Your task to perform on an android device: open sync settings in chrome Image 0: 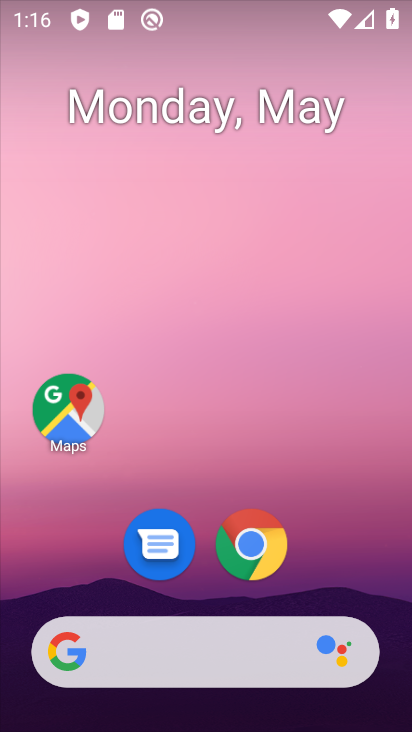
Step 0: drag from (383, 594) to (375, 93)
Your task to perform on an android device: open sync settings in chrome Image 1: 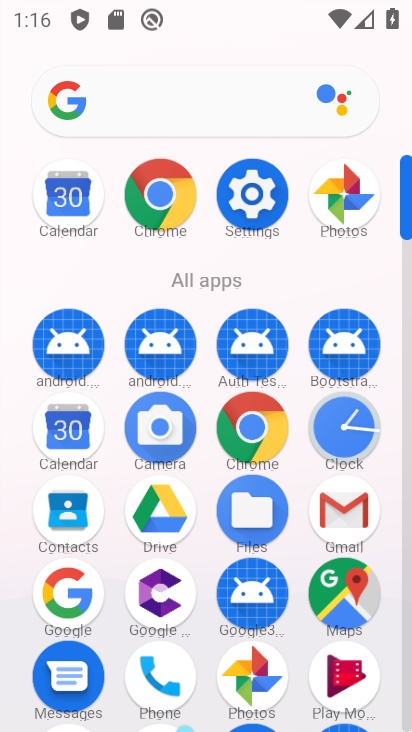
Step 1: click (179, 215)
Your task to perform on an android device: open sync settings in chrome Image 2: 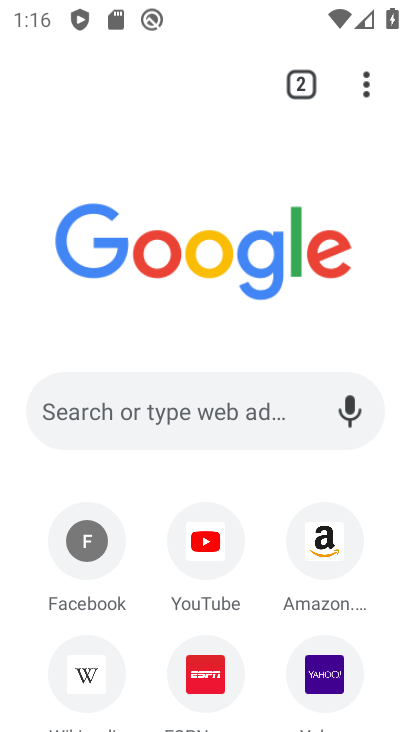
Step 2: click (361, 98)
Your task to perform on an android device: open sync settings in chrome Image 3: 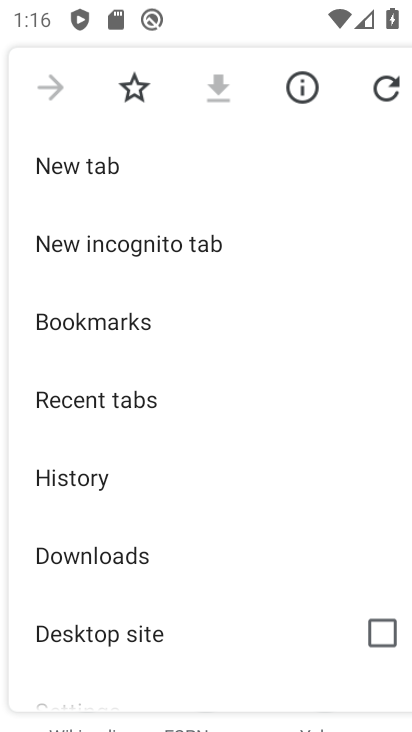
Step 3: drag from (304, 385) to (331, 289)
Your task to perform on an android device: open sync settings in chrome Image 4: 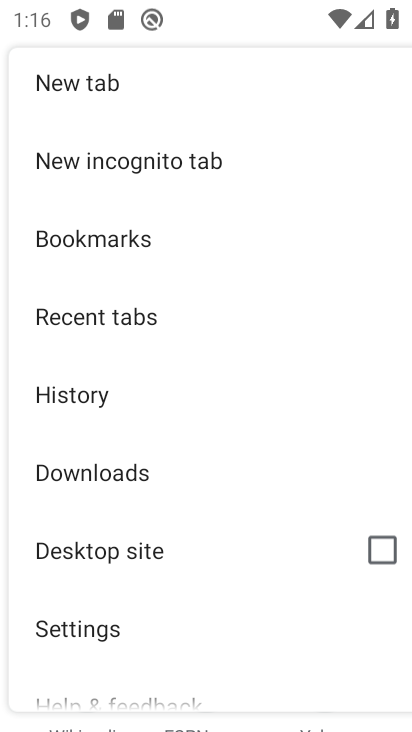
Step 4: drag from (294, 398) to (300, 285)
Your task to perform on an android device: open sync settings in chrome Image 5: 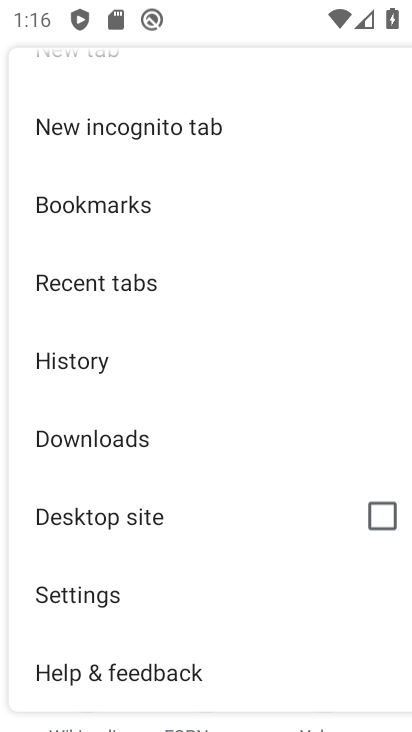
Step 5: drag from (273, 459) to (279, 327)
Your task to perform on an android device: open sync settings in chrome Image 6: 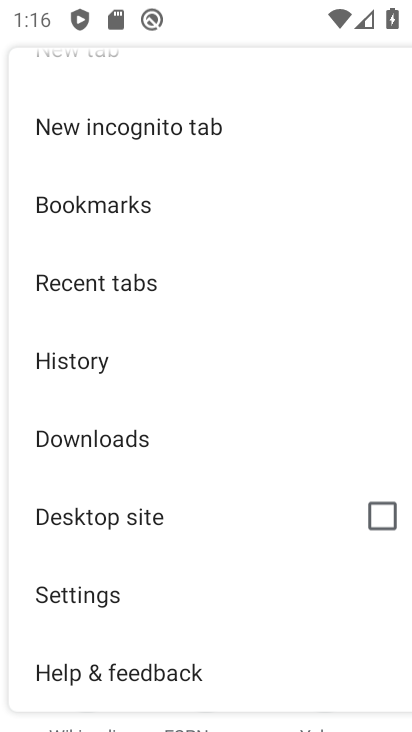
Step 6: click (162, 599)
Your task to perform on an android device: open sync settings in chrome Image 7: 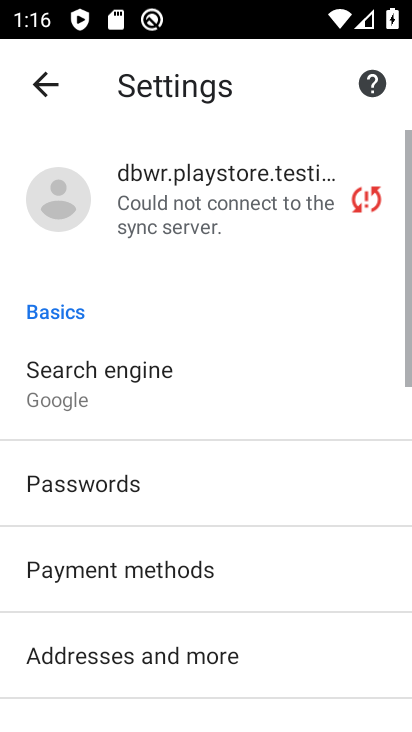
Step 7: drag from (287, 536) to (283, 465)
Your task to perform on an android device: open sync settings in chrome Image 8: 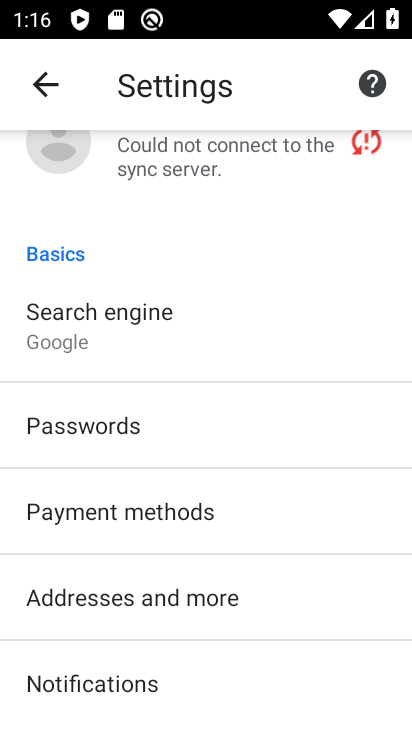
Step 8: drag from (279, 609) to (297, 529)
Your task to perform on an android device: open sync settings in chrome Image 9: 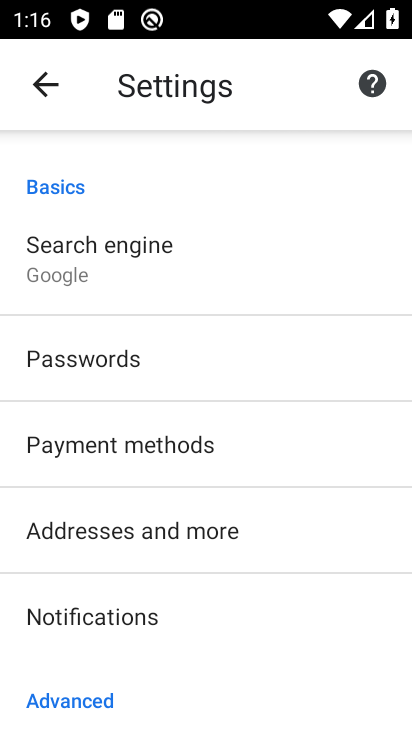
Step 9: drag from (294, 631) to (304, 536)
Your task to perform on an android device: open sync settings in chrome Image 10: 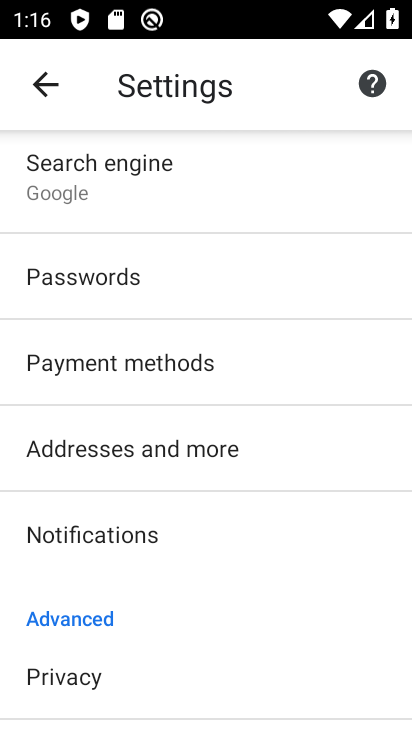
Step 10: drag from (275, 634) to (300, 565)
Your task to perform on an android device: open sync settings in chrome Image 11: 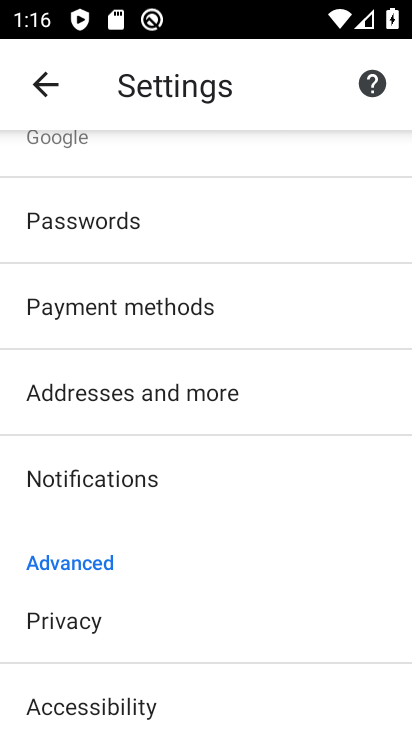
Step 11: drag from (291, 637) to (322, 428)
Your task to perform on an android device: open sync settings in chrome Image 12: 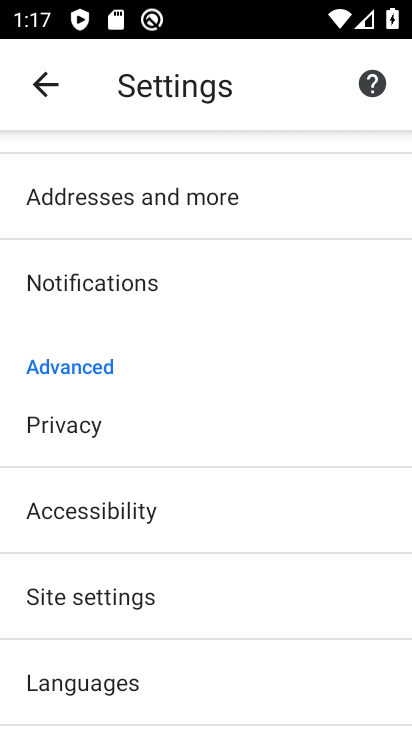
Step 12: drag from (306, 622) to (333, 408)
Your task to perform on an android device: open sync settings in chrome Image 13: 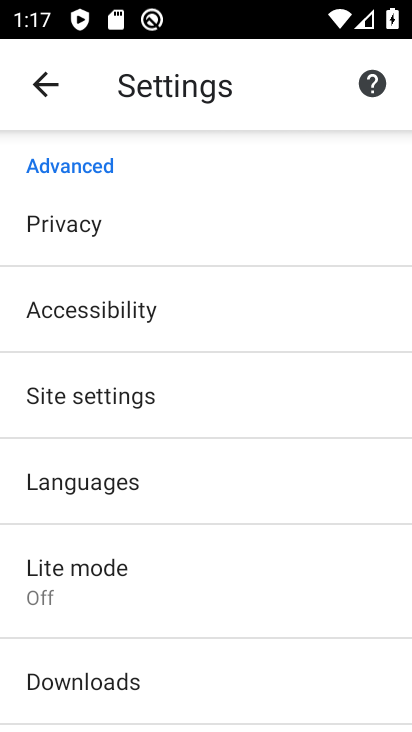
Step 13: drag from (308, 604) to (314, 435)
Your task to perform on an android device: open sync settings in chrome Image 14: 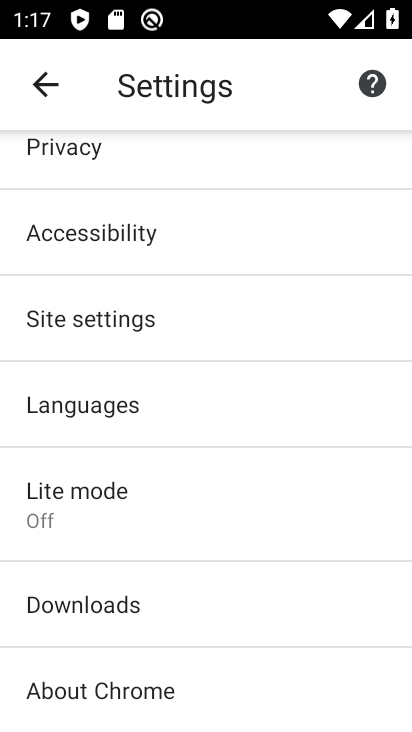
Step 14: click (231, 309)
Your task to perform on an android device: open sync settings in chrome Image 15: 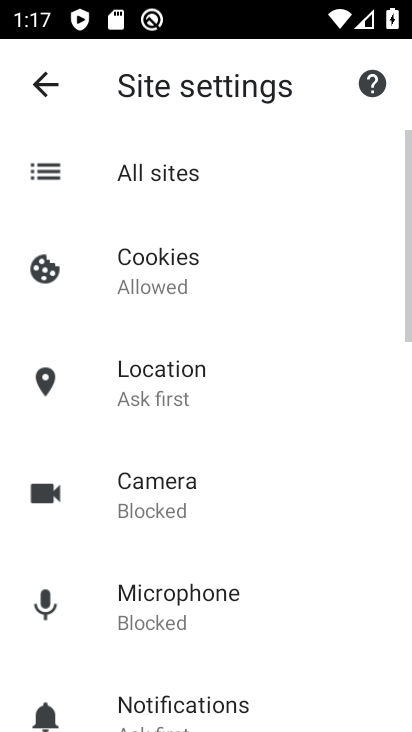
Step 15: drag from (299, 530) to (323, 416)
Your task to perform on an android device: open sync settings in chrome Image 16: 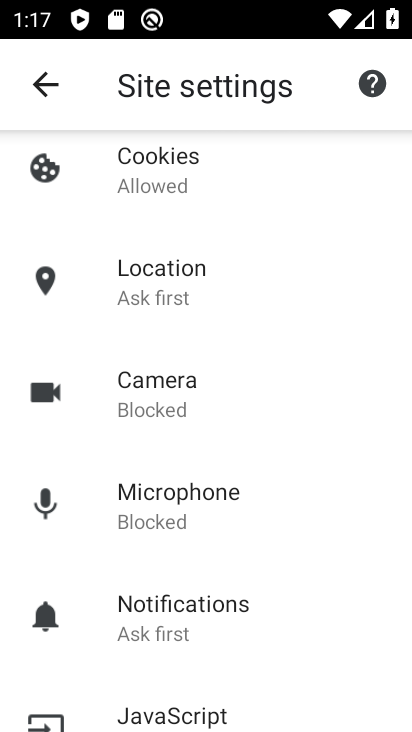
Step 16: drag from (306, 583) to (307, 454)
Your task to perform on an android device: open sync settings in chrome Image 17: 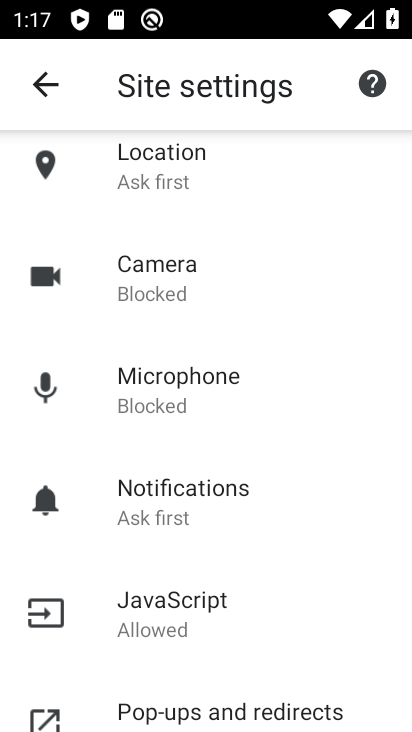
Step 17: drag from (315, 588) to (323, 458)
Your task to perform on an android device: open sync settings in chrome Image 18: 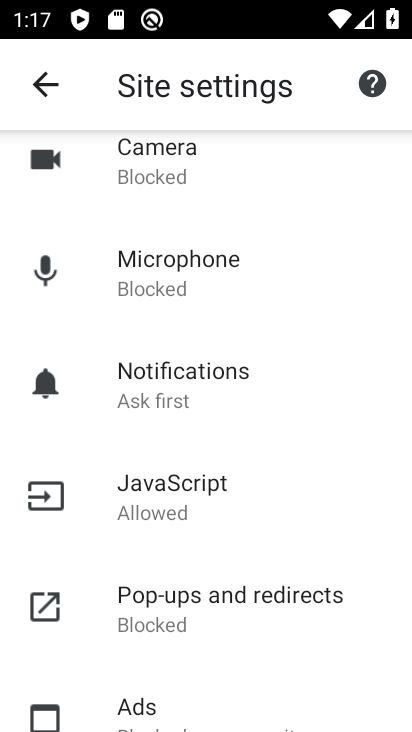
Step 18: drag from (320, 646) to (313, 485)
Your task to perform on an android device: open sync settings in chrome Image 19: 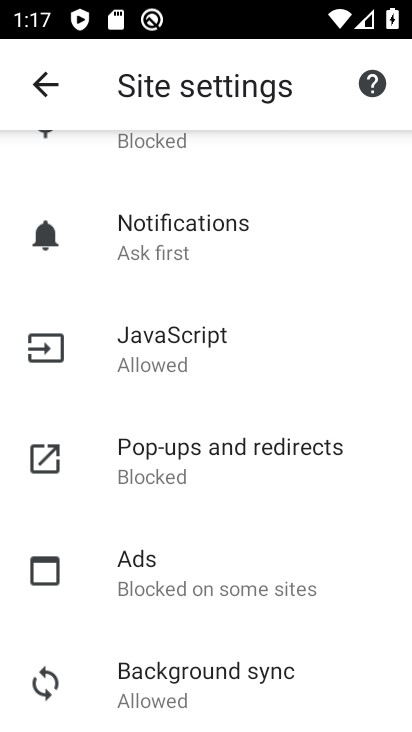
Step 19: drag from (341, 626) to (359, 470)
Your task to perform on an android device: open sync settings in chrome Image 20: 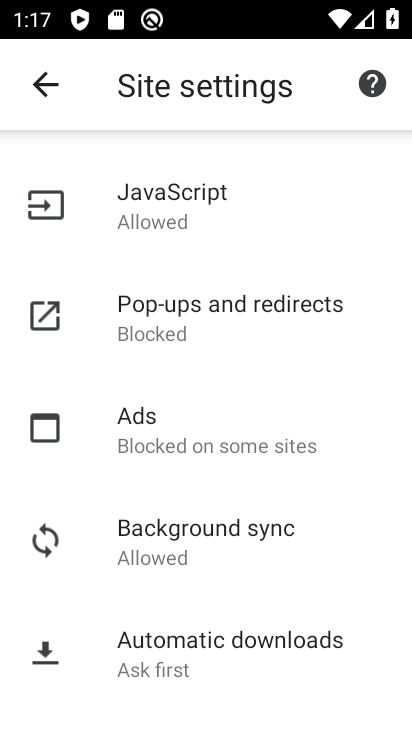
Step 20: drag from (361, 578) to (357, 459)
Your task to perform on an android device: open sync settings in chrome Image 21: 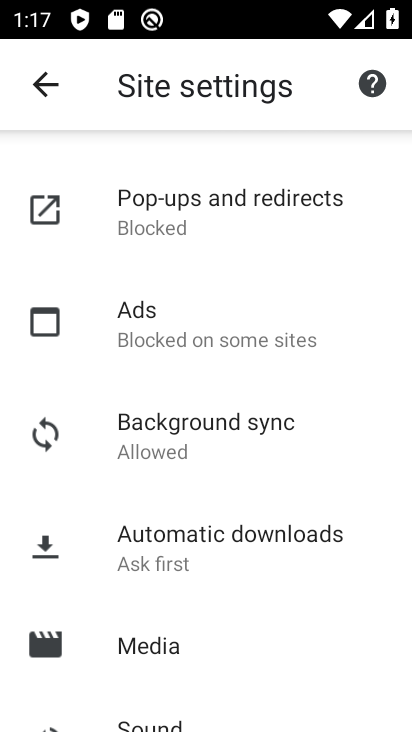
Step 21: click (208, 450)
Your task to perform on an android device: open sync settings in chrome Image 22: 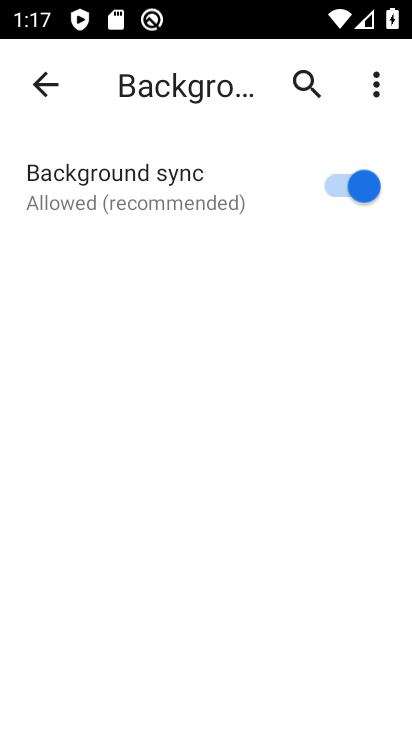
Step 22: task complete